Your task to perform on an android device: create a new album in the google photos Image 0: 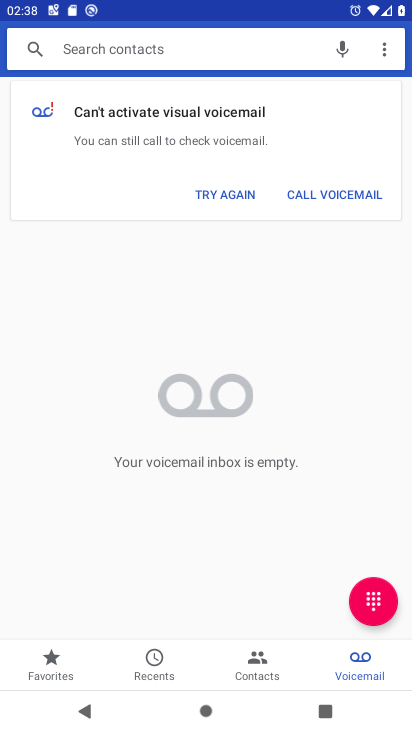
Step 0: press home button
Your task to perform on an android device: create a new album in the google photos Image 1: 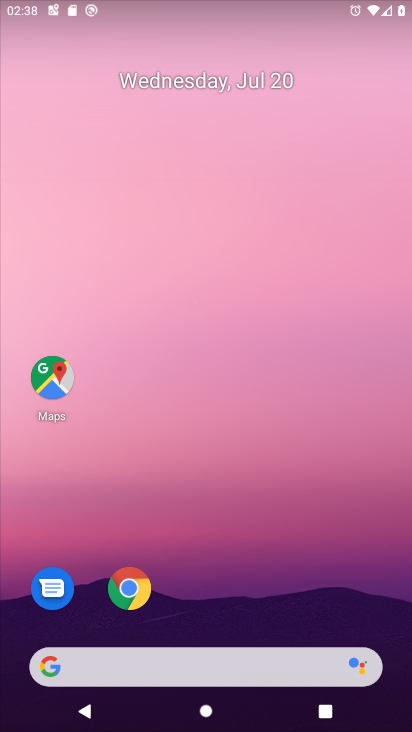
Step 1: drag from (196, 619) to (201, 231)
Your task to perform on an android device: create a new album in the google photos Image 2: 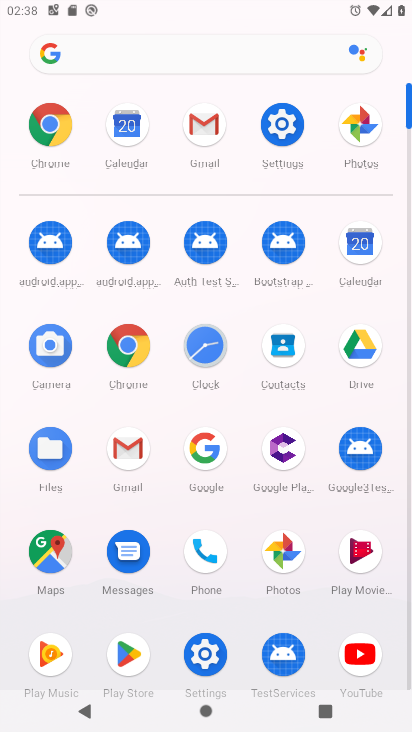
Step 2: click (360, 126)
Your task to perform on an android device: create a new album in the google photos Image 3: 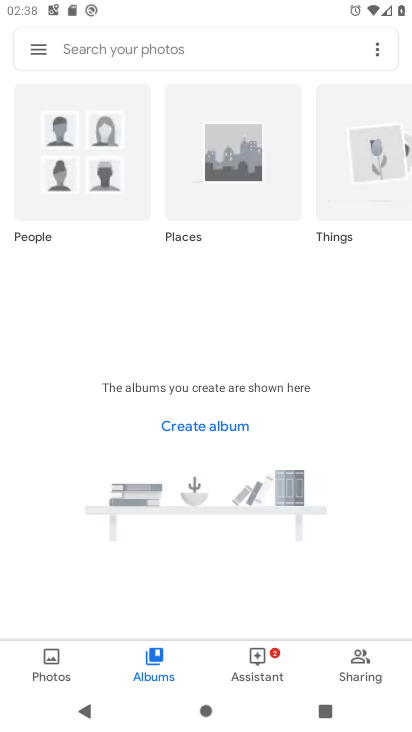
Step 3: click (59, 654)
Your task to perform on an android device: create a new album in the google photos Image 4: 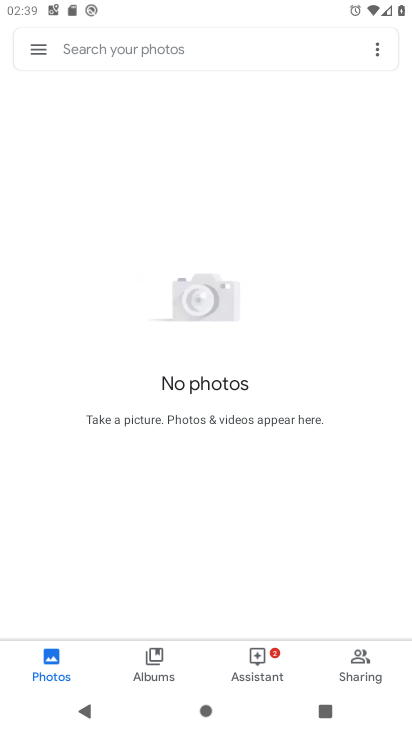
Step 4: task complete